Your task to perform on an android device: What's the weather going to be this weekend? Image 0: 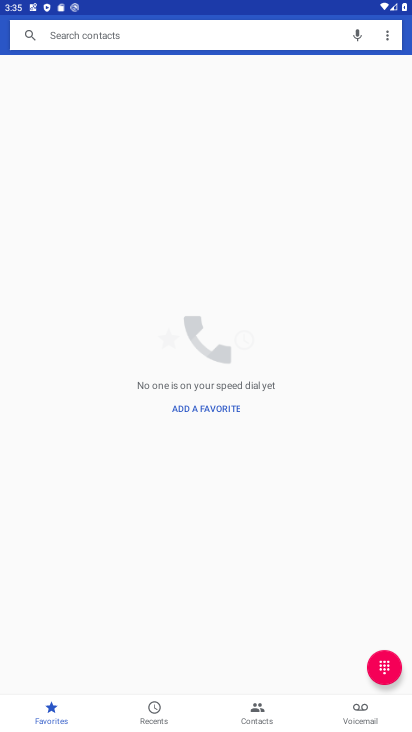
Step 0: press home button
Your task to perform on an android device: What's the weather going to be this weekend? Image 1: 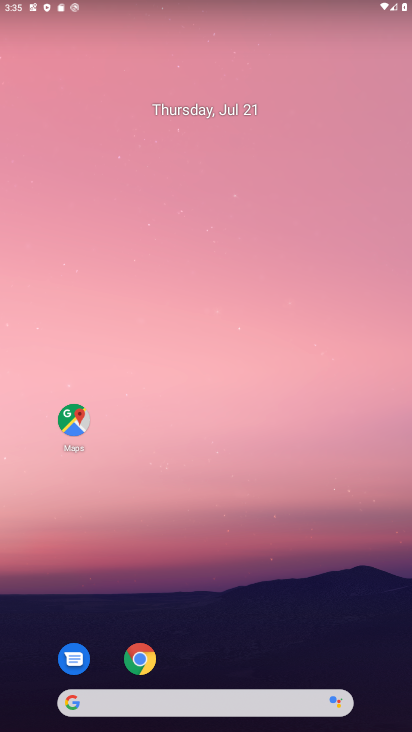
Step 1: click (209, 697)
Your task to perform on an android device: What's the weather going to be this weekend? Image 2: 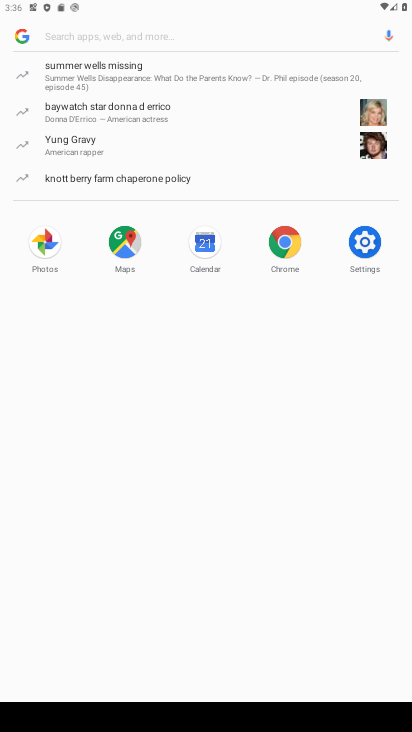
Step 2: type "What's the weather going to be this weekend?"
Your task to perform on an android device: What's the weather going to be this weekend? Image 3: 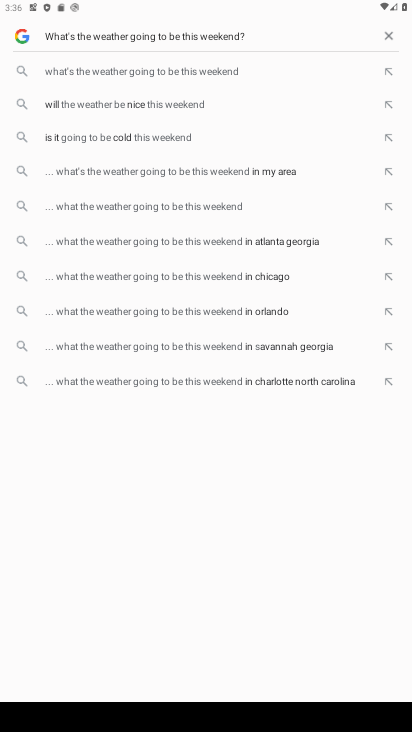
Step 3: click (176, 75)
Your task to perform on an android device: What's the weather going to be this weekend? Image 4: 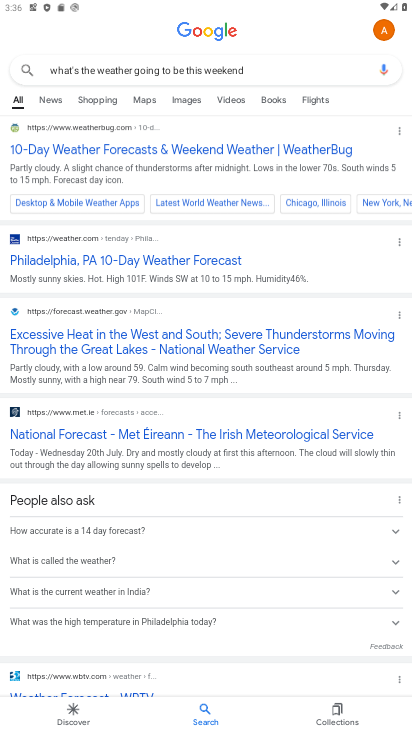
Step 4: click (94, 142)
Your task to perform on an android device: What's the weather going to be this weekend? Image 5: 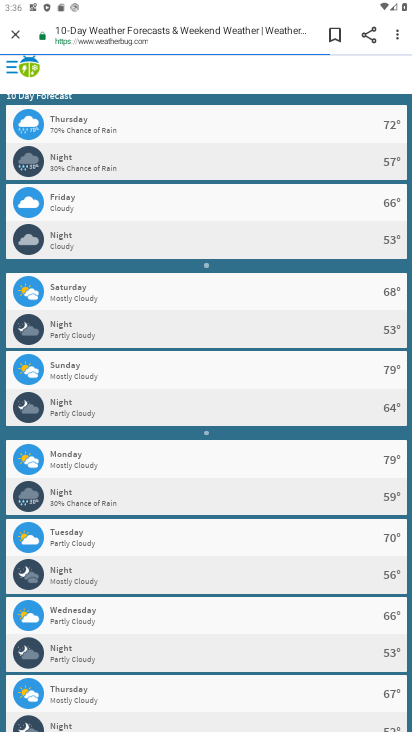
Step 5: click (181, 232)
Your task to perform on an android device: What's the weather going to be this weekend? Image 6: 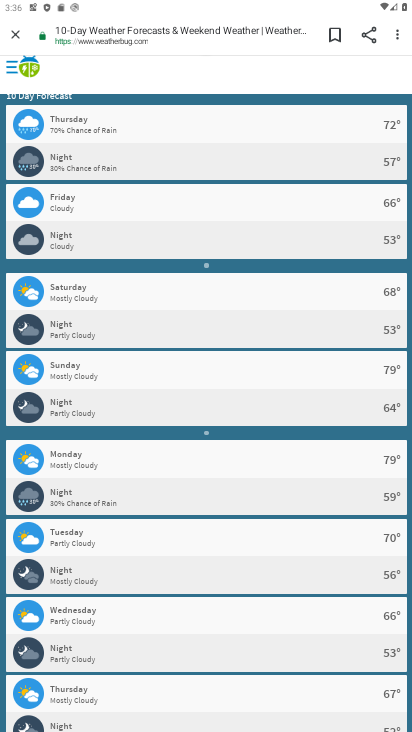
Step 6: task complete